Your task to perform on an android device: toggle improve location accuracy Image 0: 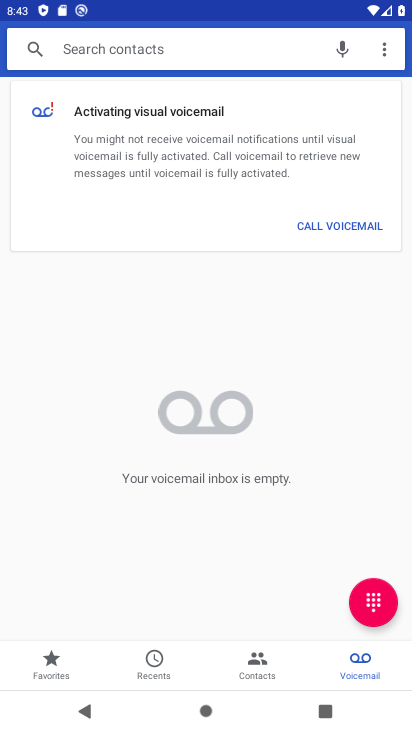
Step 0: press home button
Your task to perform on an android device: toggle improve location accuracy Image 1: 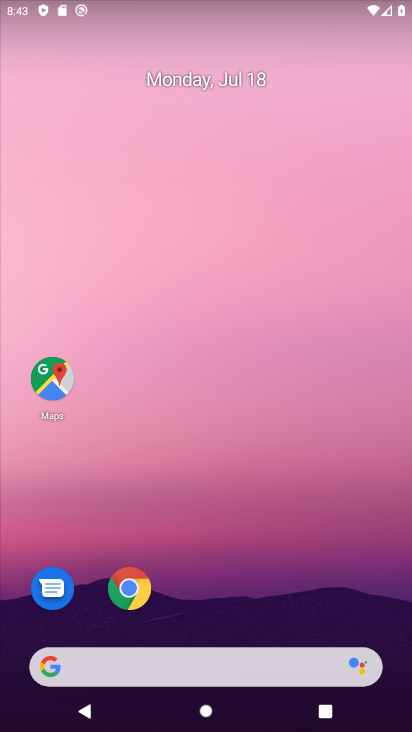
Step 1: click (319, 89)
Your task to perform on an android device: toggle improve location accuracy Image 2: 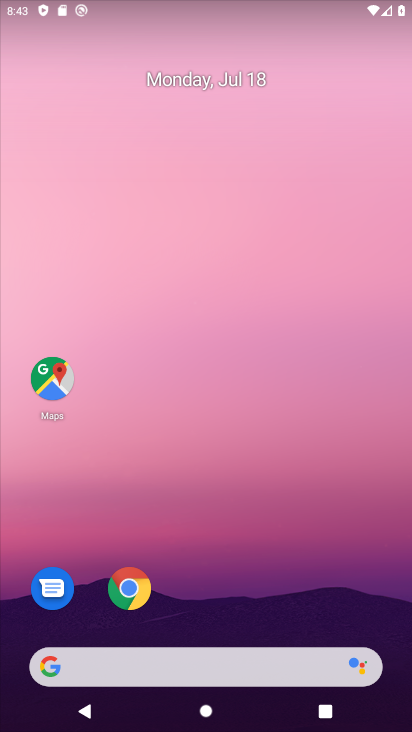
Step 2: drag from (278, 598) to (175, 135)
Your task to perform on an android device: toggle improve location accuracy Image 3: 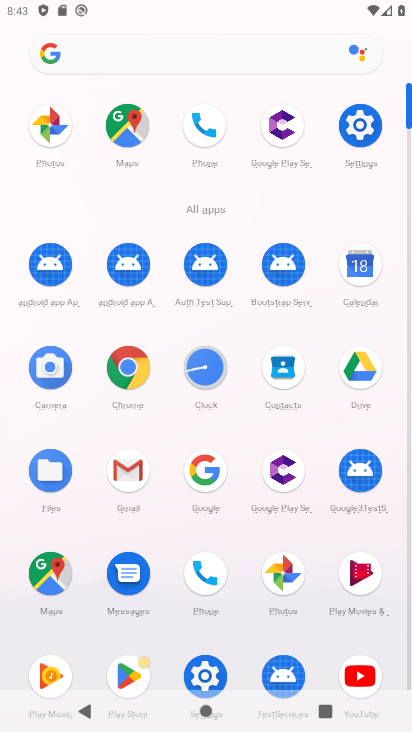
Step 3: click (357, 122)
Your task to perform on an android device: toggle improve location accuracy Image 4: 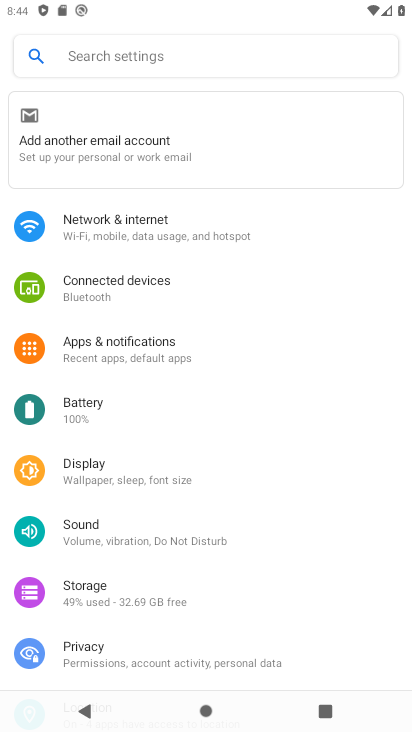
Step 4: drag from (117, 622) to (52, 298)
Your task to perform on an android device: toggle improve location accuracy Image 5: 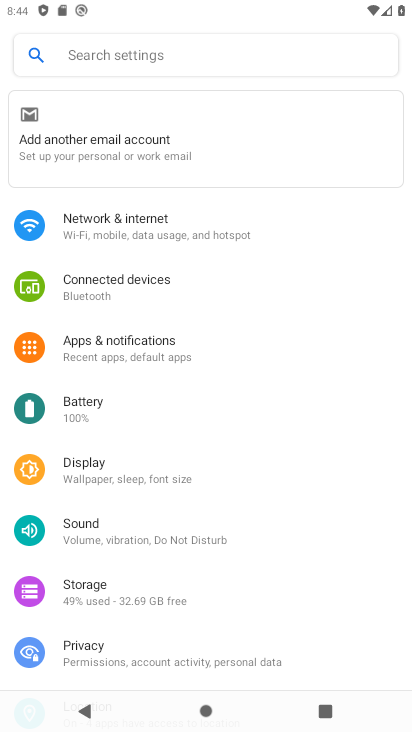
Step 5: drag from (83, 584) to (63, 330)
Your task to perform on an android device: toggle improve location accuracy Image 6: 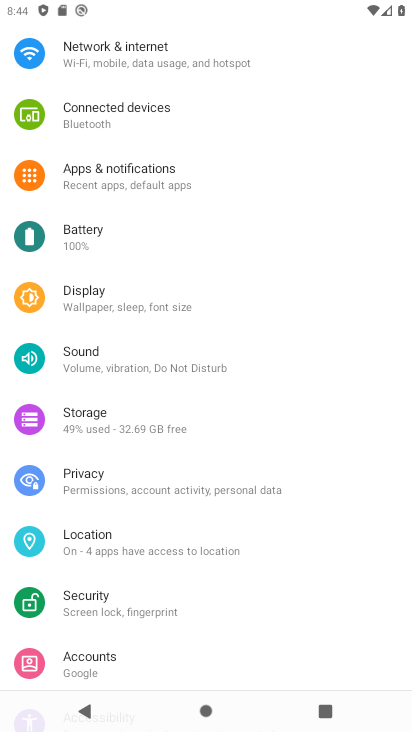
Step 6: click (78, 541)
Your task to perform on an android device: toggle improve location accuracy Image 7: 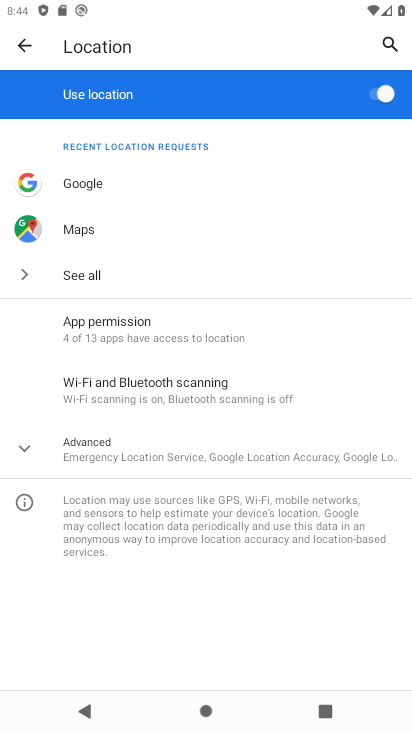
Step 7: click (153, 438)
Your task to perform on an android device: toggle improve location accuracy Image 8: 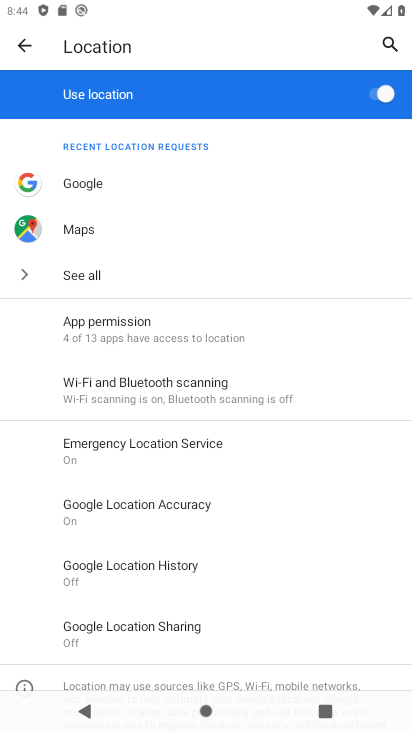
Step 8: click (109, 511)
Your task to perform on an android device: toggle improve location accuracy Image 9: 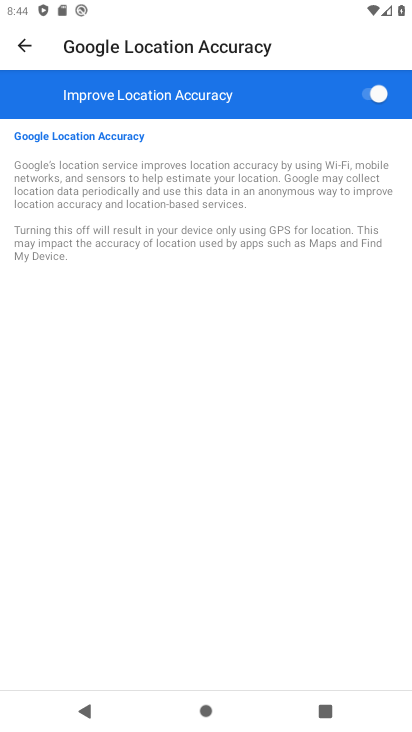
Step 9: click (383, 81)
Your task to perform on an android device: toggle improve location accuracy Image 10: 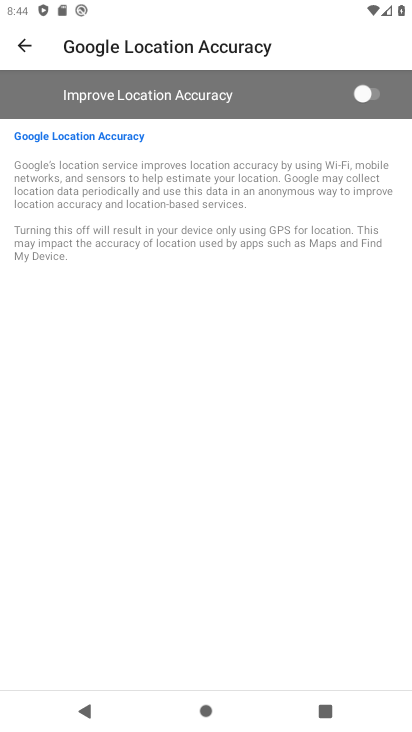
Step 10: task complete